Your task to perform on an android device: turn off translation in the chrome app Image 0: 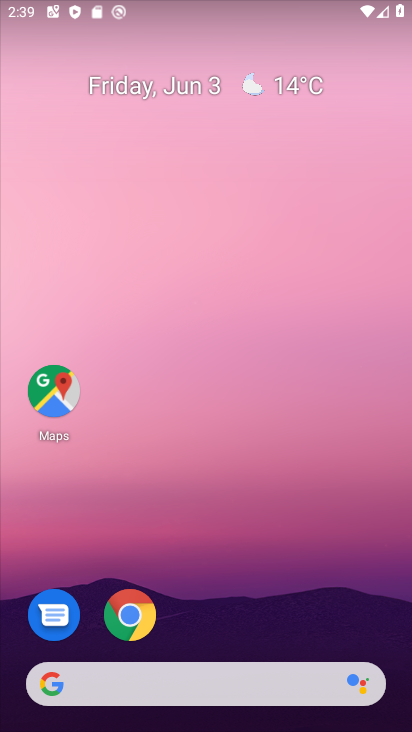
Step 0: click (129, 611)
Your task to perform on an android device: turn off translation in the chrome app Image 1: 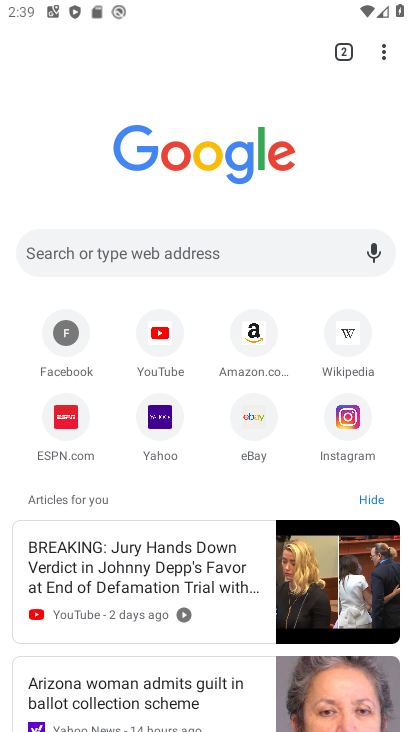
Step 1: drag from (377, 59) to (189, 429)
Your task to perform on an android device: turn off translation in the chrome app Image 2: 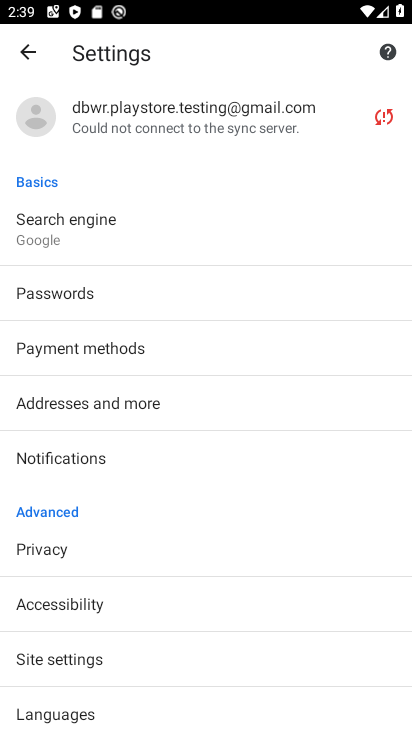
Step 2: click (39, 719)
Your task to perform on an android device: turn off translation in the chrome app Image 3: 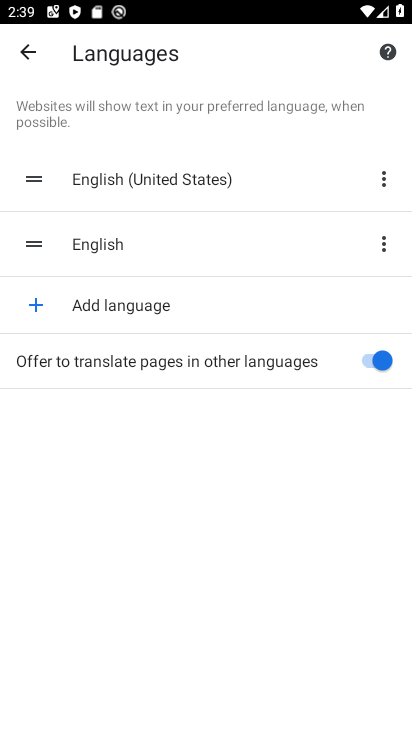
Step 3: click (377, 360)
Your task to perform on an android device: turn off translation in the chrome app Image 4: 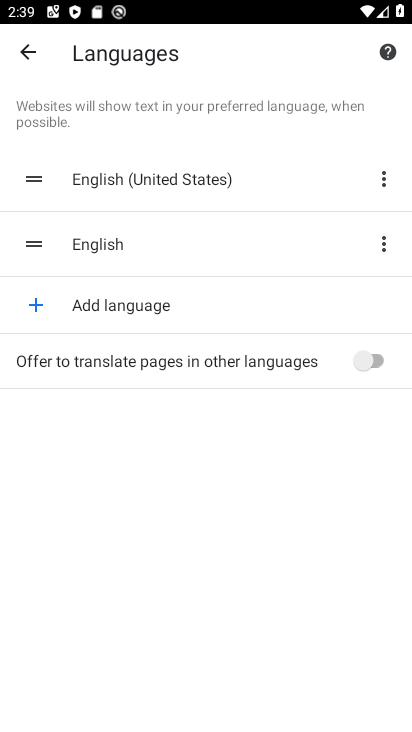
Step 4: task complete